Your task to perform on an android device: turn off priority inbox in the gmail app Image 0: 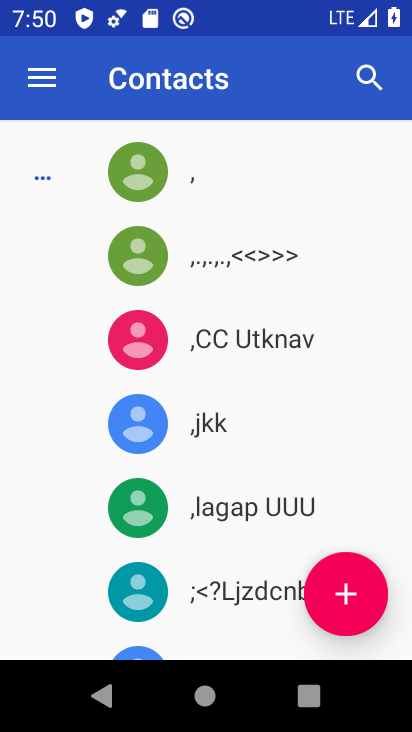
Step 0: press home button
Your task to perform on an android device: turn off priority inbox in the gmail app Image 1: 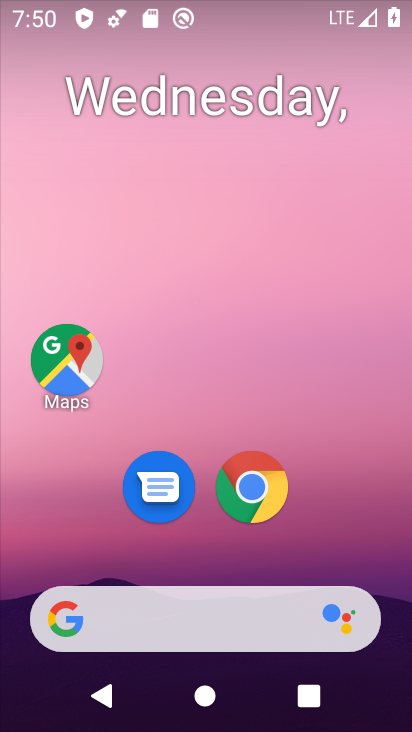
Step 1: drag from (13, 607) to (163, 270)
Your task to perform on an android device: turn off priority inbox in the gmail app Image 2: 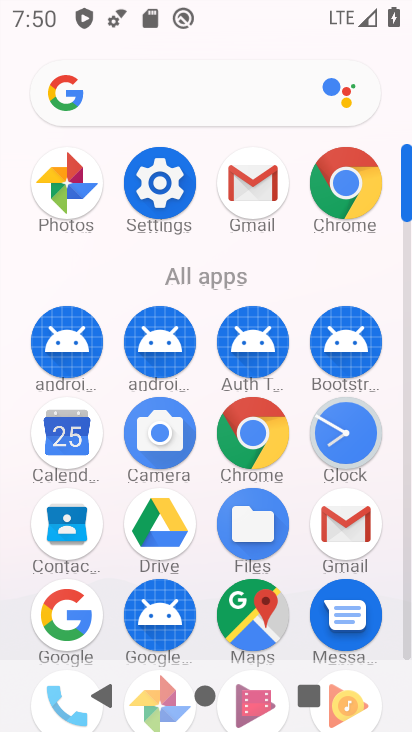
Step 2: click (252, 207)
Your task to perform on an android device: turn off priority inbox in the gmail app Image 3: 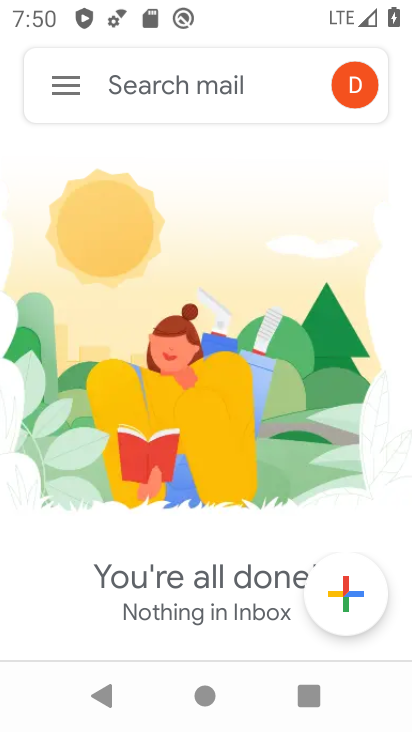
Step 3: click (79, 88)
Your task to perform on an android device: turn off priority inbox in the gmail app Image 4: 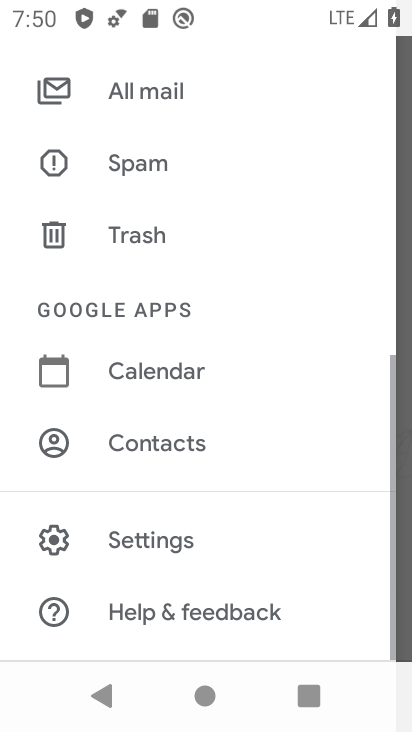
Step 4: drag from (5, 543) to (195, 151)
Your task to perform on an android device: turn off priority inbox in the gmail app Image 5: 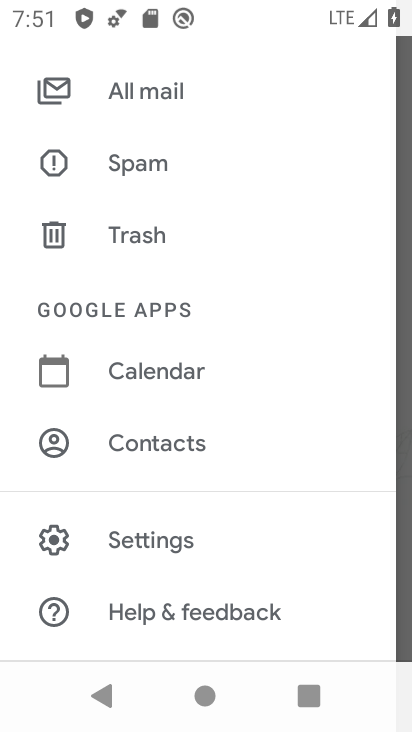
Step 5: click (140, 550)
Your task to perform on an android device: turn off priority inbox in the gmail app Image 6: 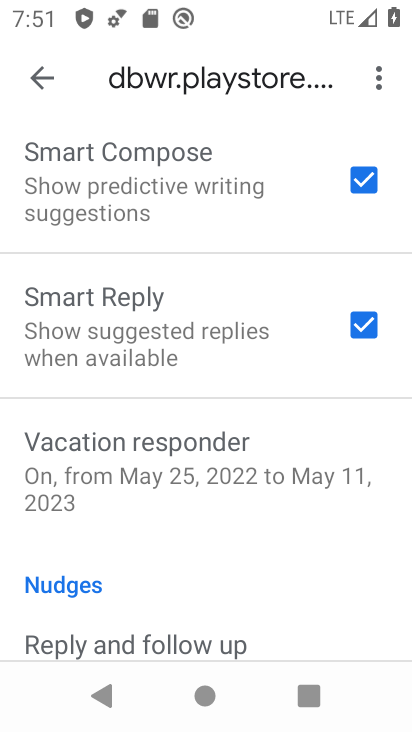
Step 6: drag from (76, 644) to (257, 199)
Your task to perform on an android device: turn off priority inbox in the gmail app Image 7: 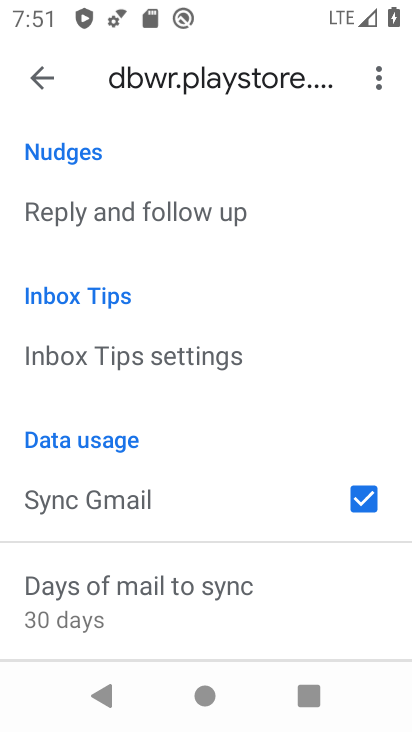
Step 7: drag from (20, 549) to (162, 284)
Your task to perform on an android device: turn off priority inbox in the gmail app Image 8: 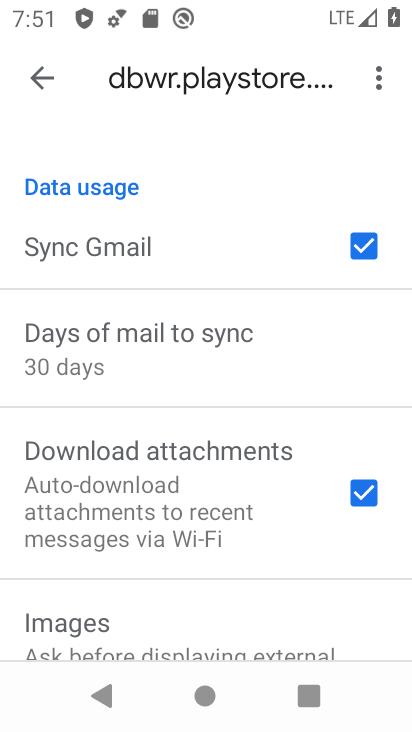
Step 8: drag from (130, 170) to (5, 614)
Your task to perform on an android device: turn off priority inbox in the gmail app Image 9: 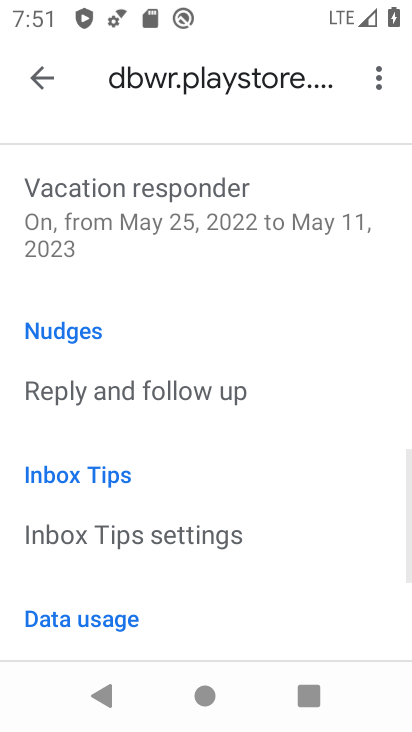
Step 9: drag from (139, 245) to (11, 645)
Your task to perform on an android device: turn off priority inbox in the gmail app Image 10: 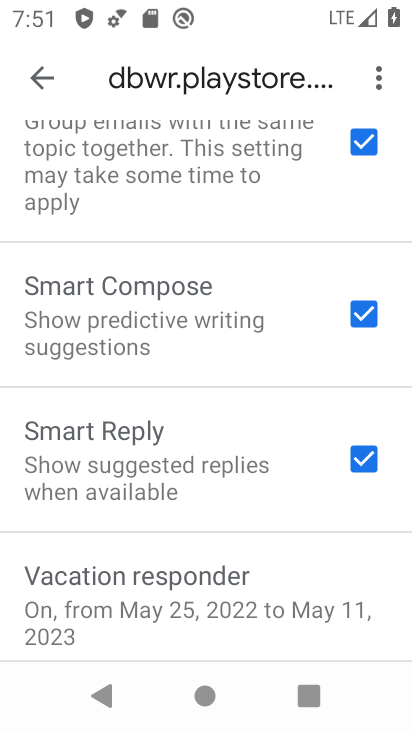
Step 10: drag from (138, 261) to (86, 588)
Your task to perform on an android device: turn off priority inbox in the gmail app Image 11: 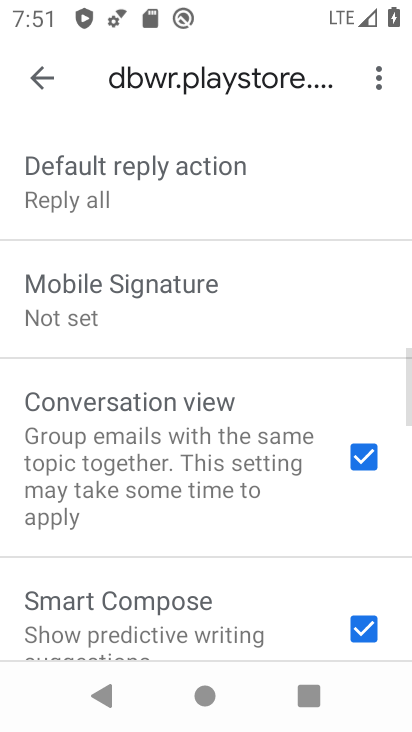
Step 11: drag from (166, 232) to (106, 572)
Your task to perform on an android device: turn off priority inbox in the gmail app Image 12: 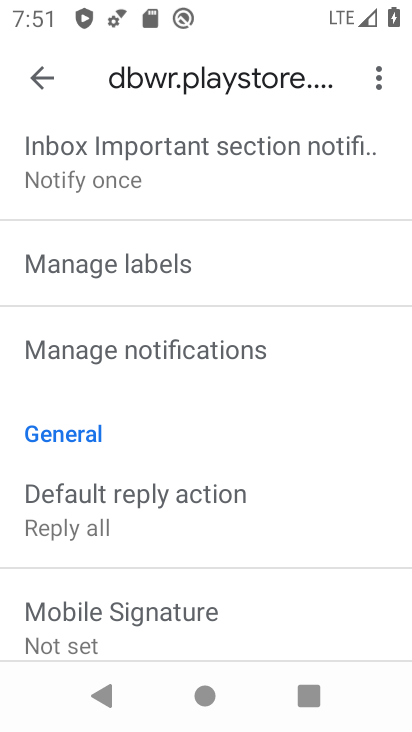
Step 12: drag from (167, 231) to (126, 611)
Your task to perform on an android device: turn off priority inbox in the gmail app Image 13: 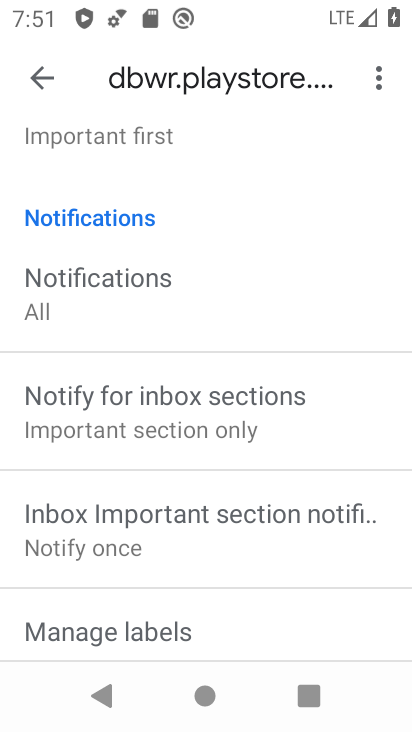
Step 13: drag from (166, 222) to (117, 525)
Your task to perform on an android device: turn off priority inbox in the gmail app Image 14: 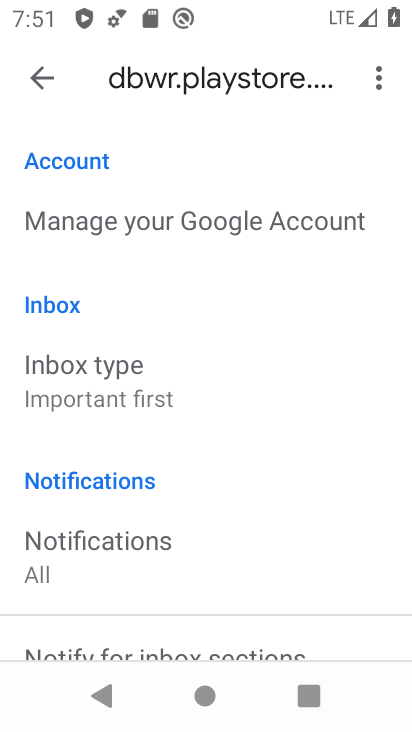
Step 14: drag from (152, 216) to (154, 429)
Your task to perform on an android device: turn off priority inbox in the gmail app Image 15: 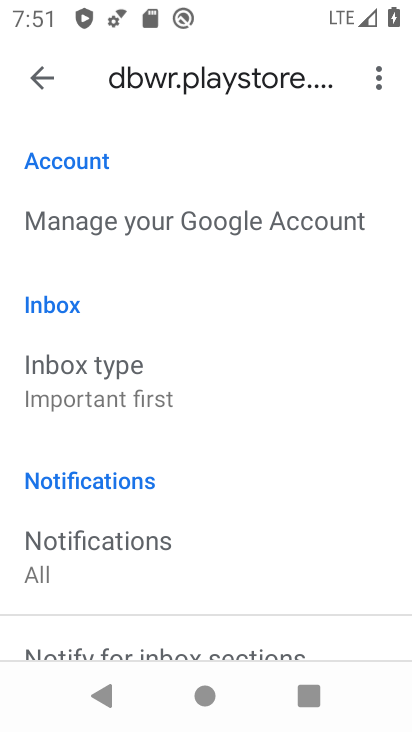
Step 15: click (168, 377)
Your task to perform on an android device: turn off priority inbox in the gmail app Image 16: 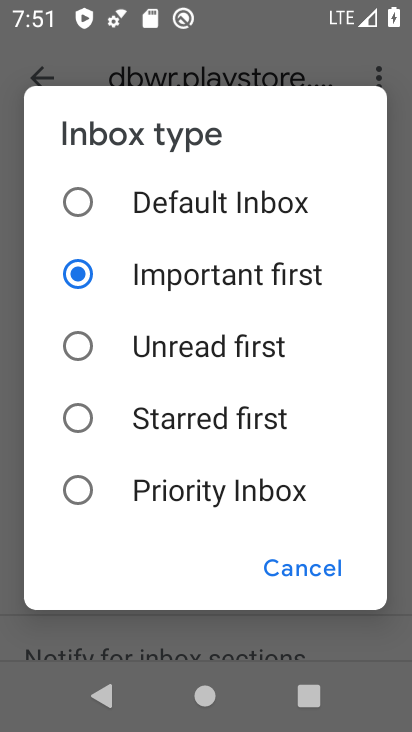
Step 16: task complete